Your task to perform on an android device: search for starred emails in the gmail app Image 0: 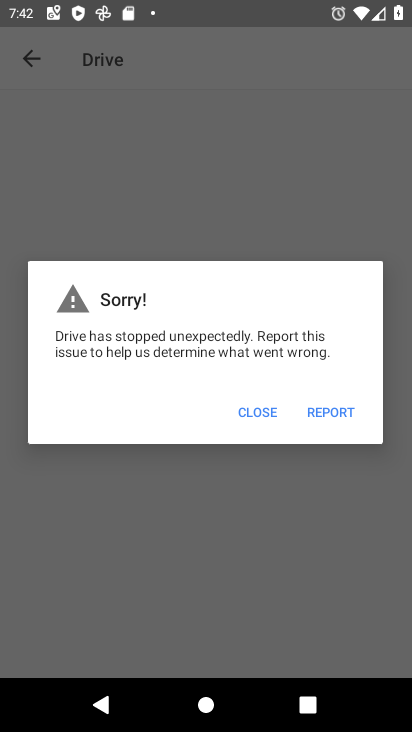
Step 0: press home button
Your task to perform on an android device: search for starred emails in the gmail app Image 1: 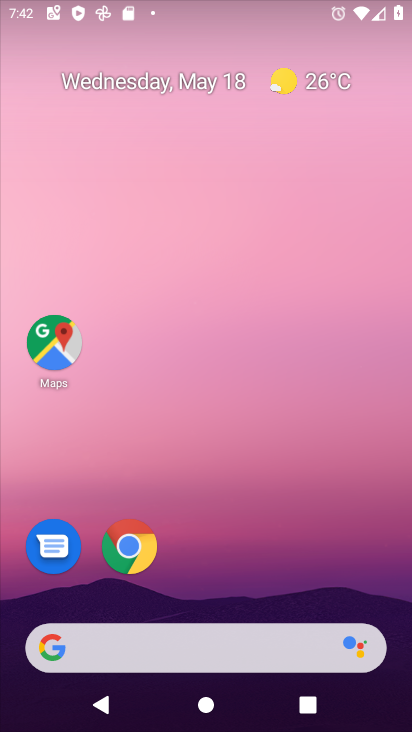
Step 1: drag from (378, 627) to (53, 24)
Your task to perform on an android device: search for starred emails in the gmail app Image 2: 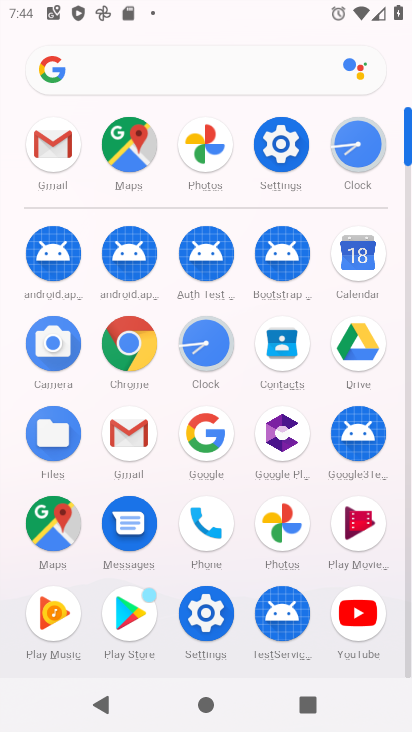
Step 2: click (134, 454)
Your task to perform on an android device: search for starred emails in the gmail app Image 3: 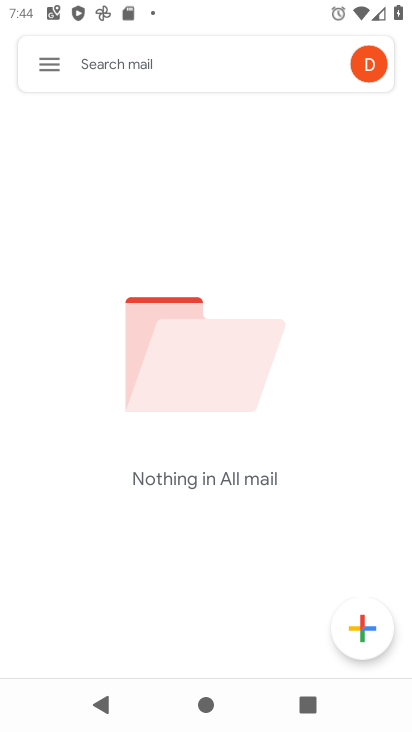
Step 3: click (53, 80)
Your task to perform on an android device: search for starred emails in the gmail app Image 4: 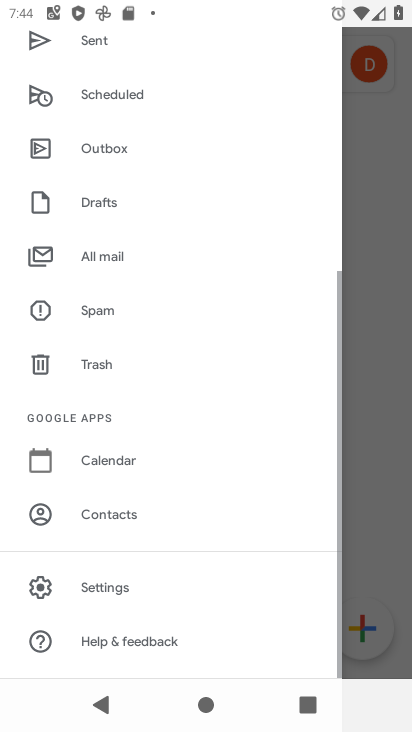
Step 4: drag from (110, 129) to (120, 612)
Your task to perform on an android device: search for starred emails in the gmail app Image 5: 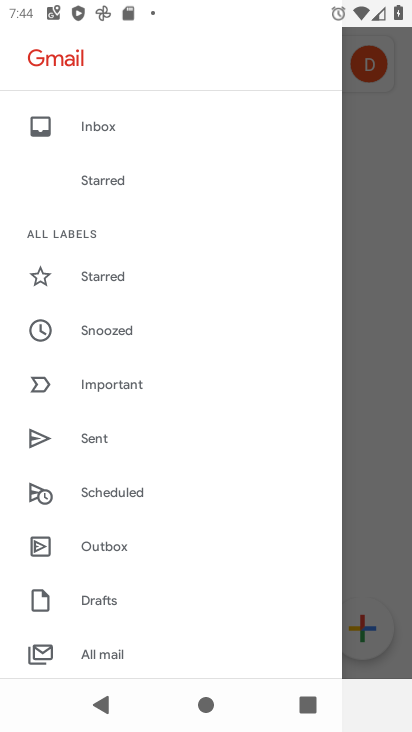
Step 5: click (114, 275)
Your task to perform on an android device: search for starred emails in the gmail app Image 6: 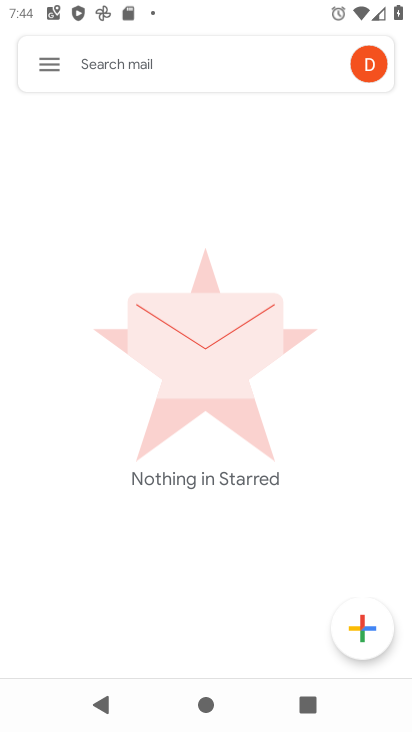
Step 6: task complete